Your task to perform on an android device: Search for sushi restaurants on Maps Image 0: 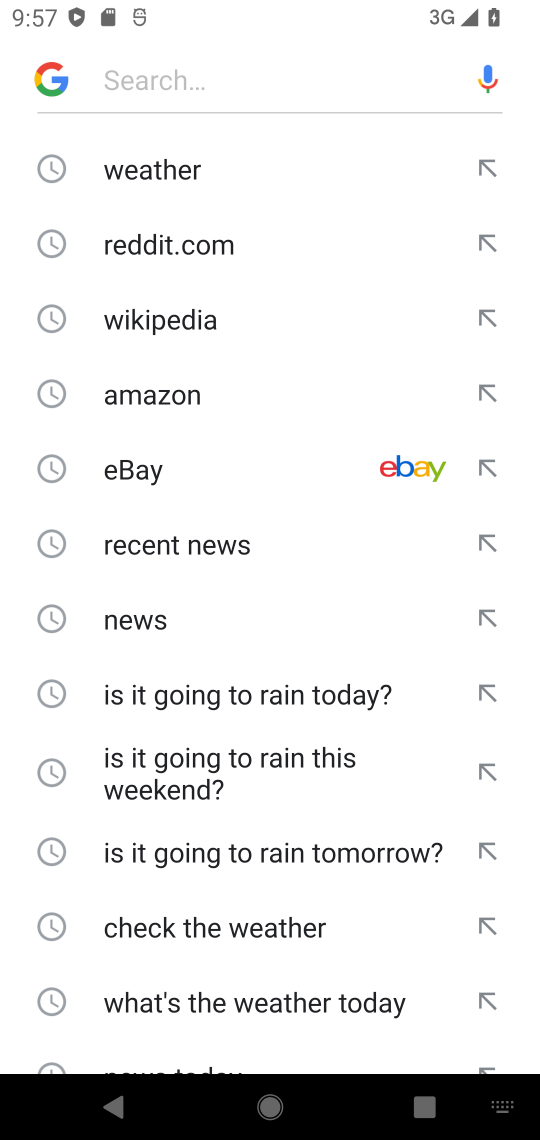
Step 0: press home button
Your task to perform on an android device: Search for sushi restaurants on Maps Image 1: 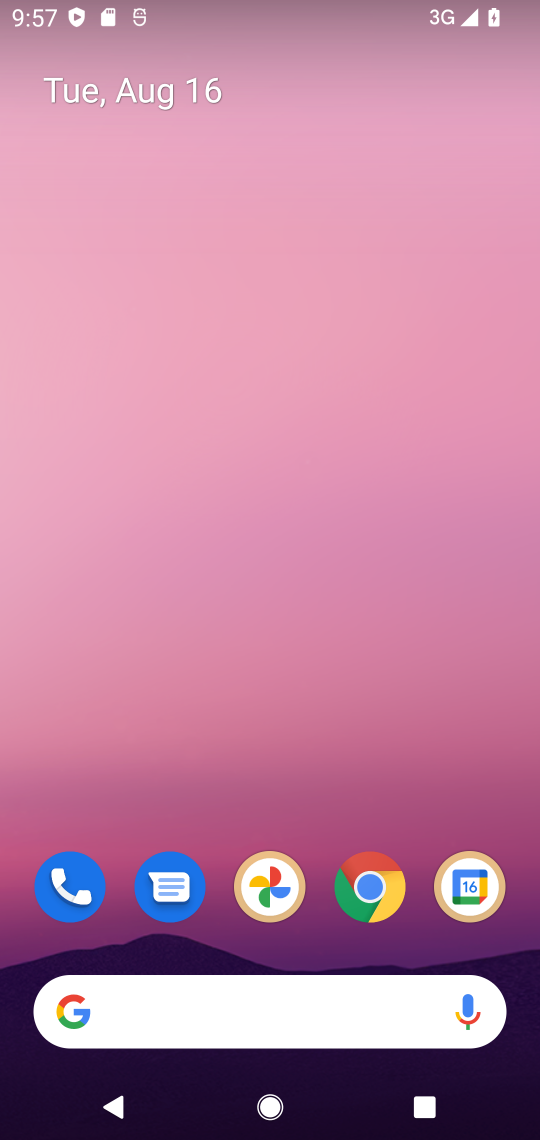
Step 1: drag from (420, 805) to (470, 148)
Your task to perform on an android device: Search for sushi restaurants on Maps Image 2: 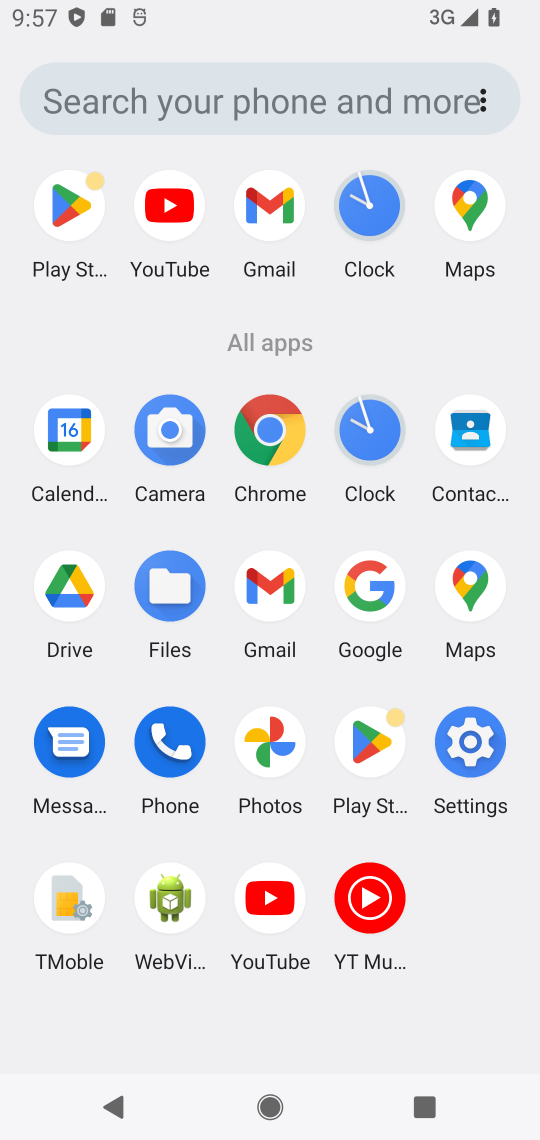
Step 2: click (487, 605)
Your task to perform on an android device: Search for sushi restaurants on Maps Image 3: 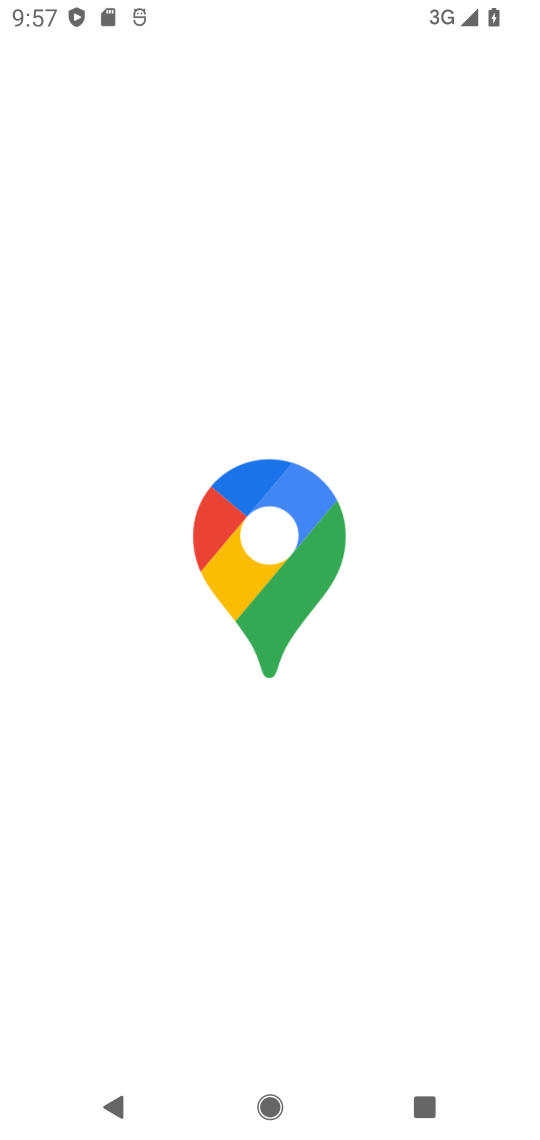
Step 3: task complete